Your task to perform on an android device: toggle priority inbox in the gmail app Image 0: 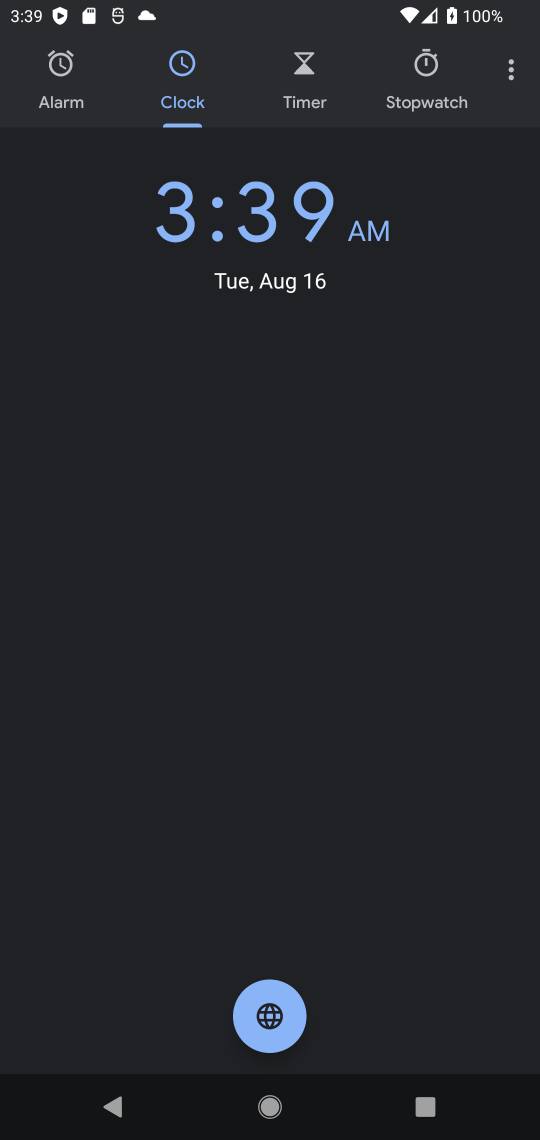
Step 0: press home button
Your task to perform on an android device: toggle priority inbox in the gmail app Image 1: 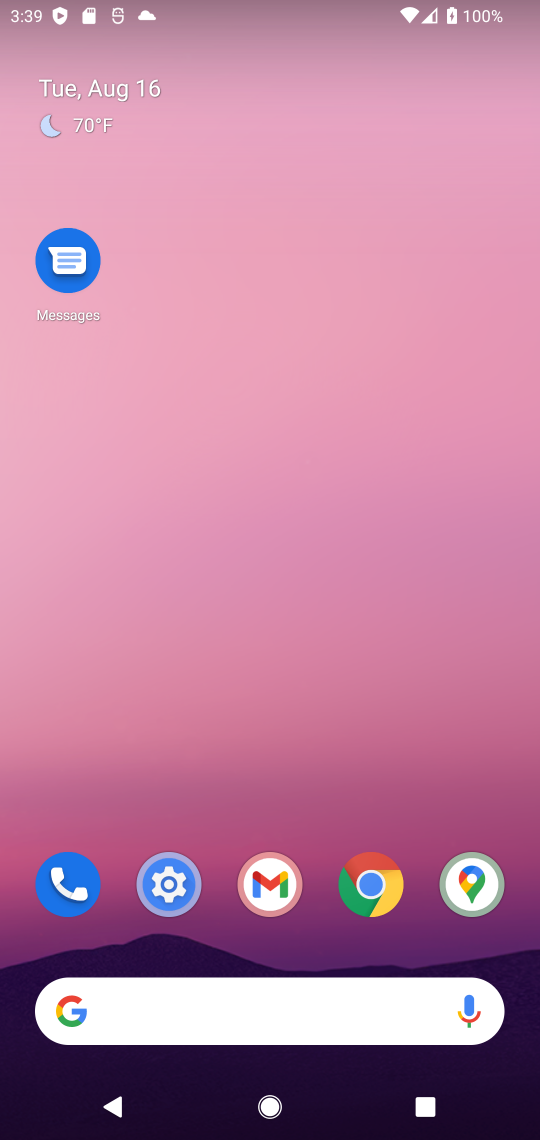
Step 1: click (259, 871)
Your task to perform on an android device: toggle priority inbox in the gmail app Image 2: 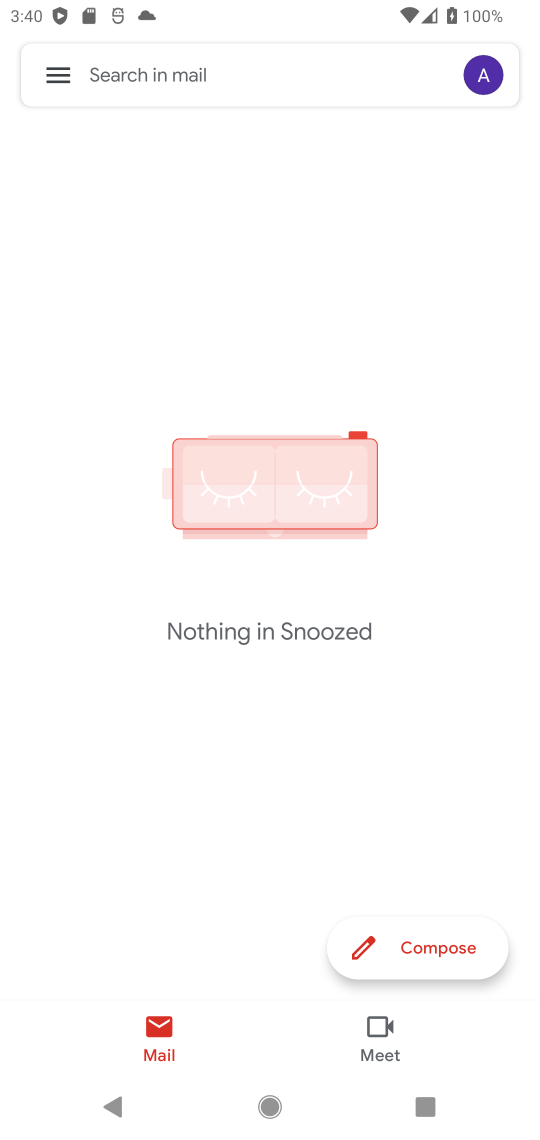
Step 2: click (67, 70)
Your task to perform on an android device: toggle priority inbox in the gmail app Image 3: 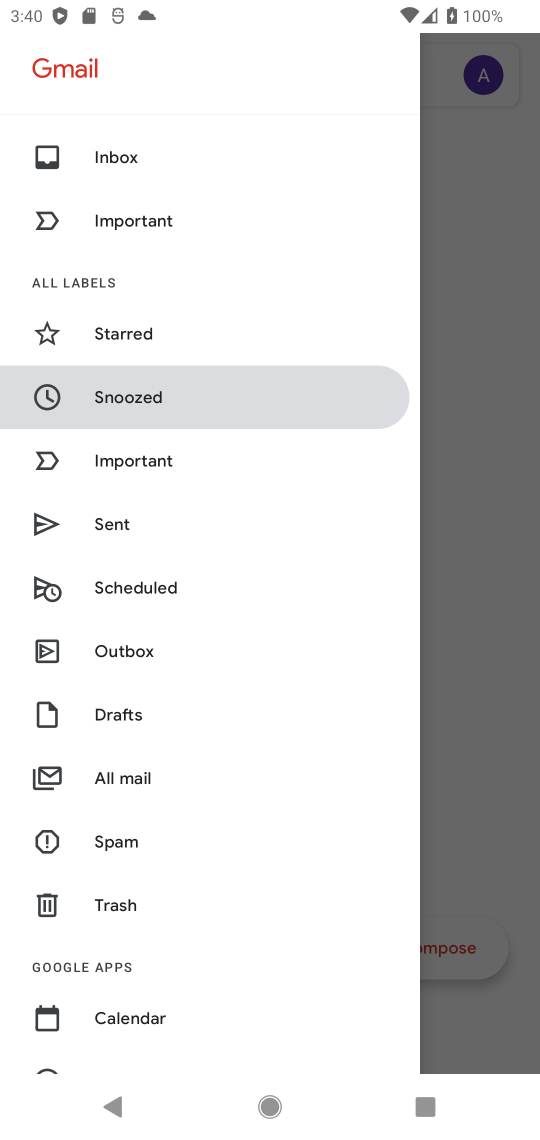
Step 3: drag from (255, 957) to (379, 511)
Your task to perform on an android device: toggle priority inbox in the gmail app Image 4: 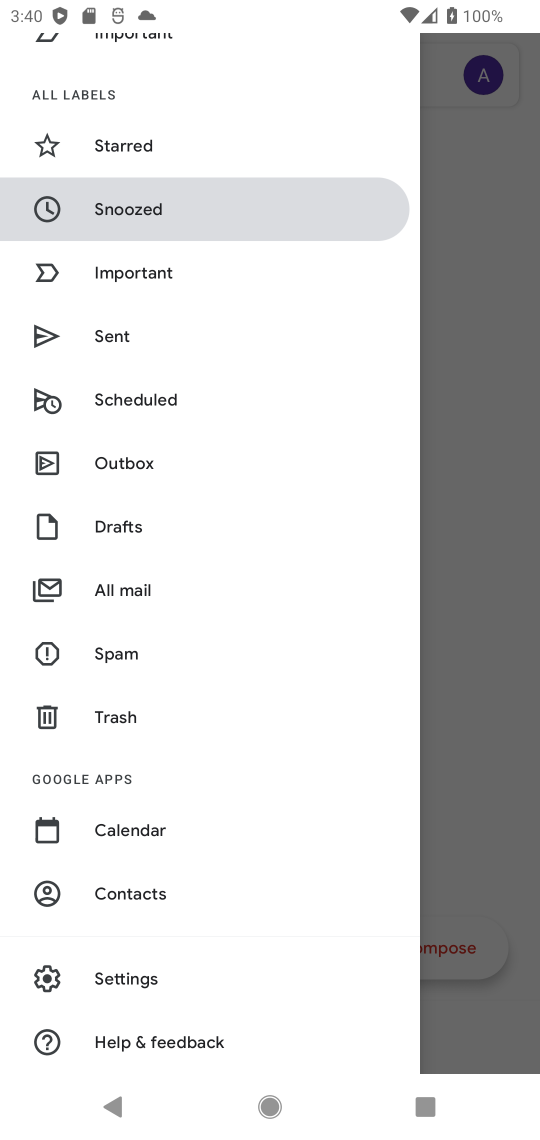
Step 4: click (119, 985)
Your task to perform on an android device: toggle priority inbox in the gmail app Image 5: 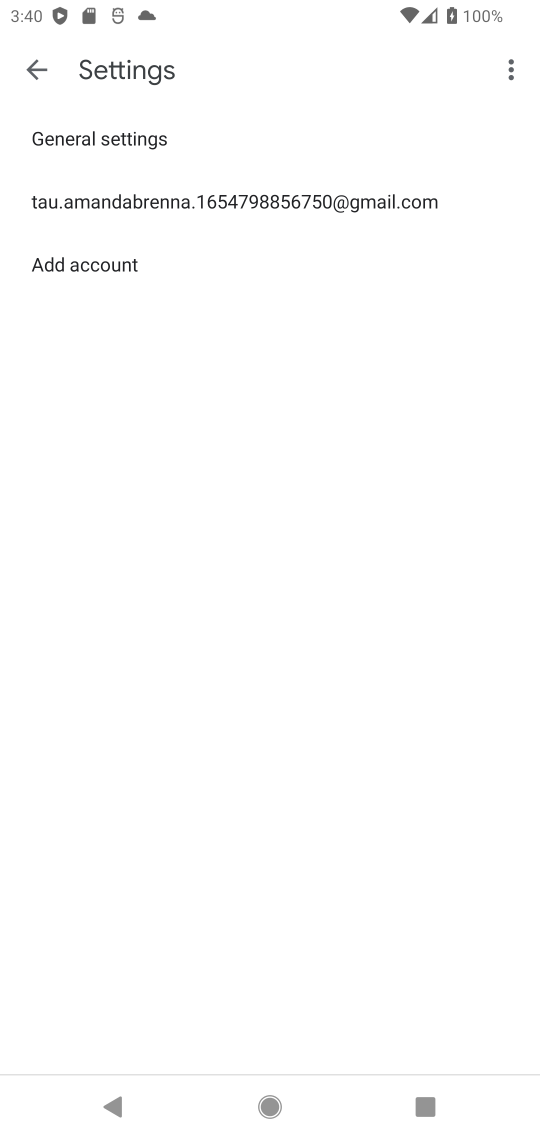
Step 5: click (100, 204)
Your task to perform on an android device: toggle priority inbox in the gmail app Image 6: 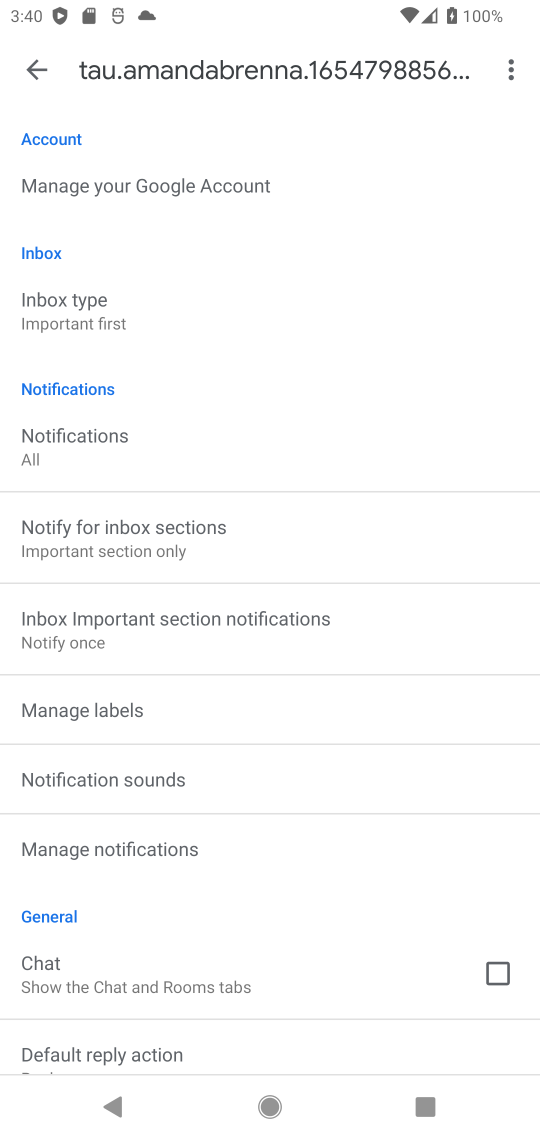
Step 6: click (78, 310)
Your task to perform on an android device: toggle priority inbox in the gmail app Image 7: 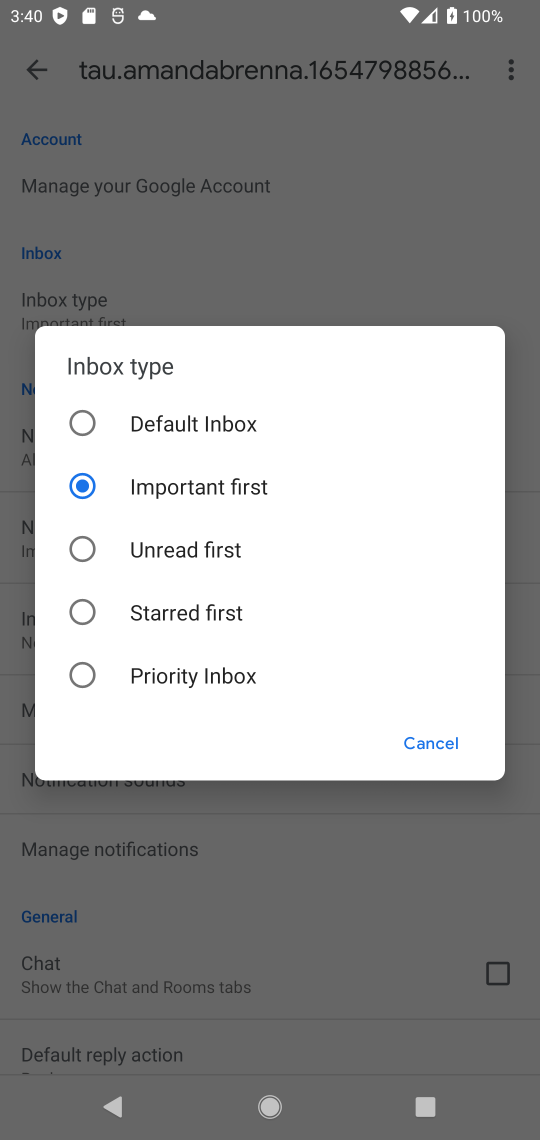
Step 7: click (132, 671)
Your task to perform on an android device: toggle priority inbox in the gmail app Image 8: 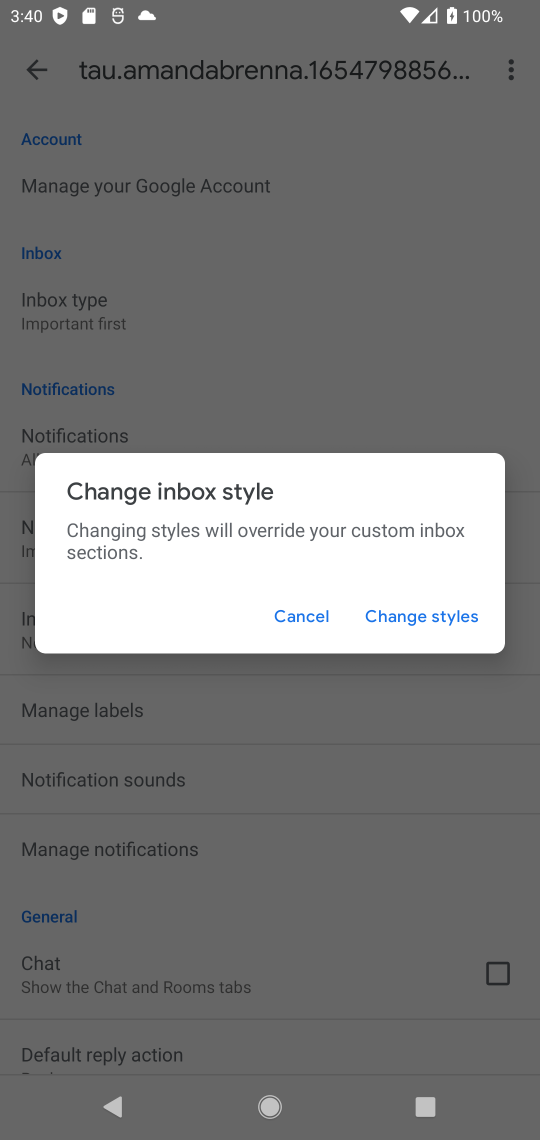
Step 8: click (416, 595)
Your task to perform on an android device: toggle priority inbox in the gmail app Image 9: 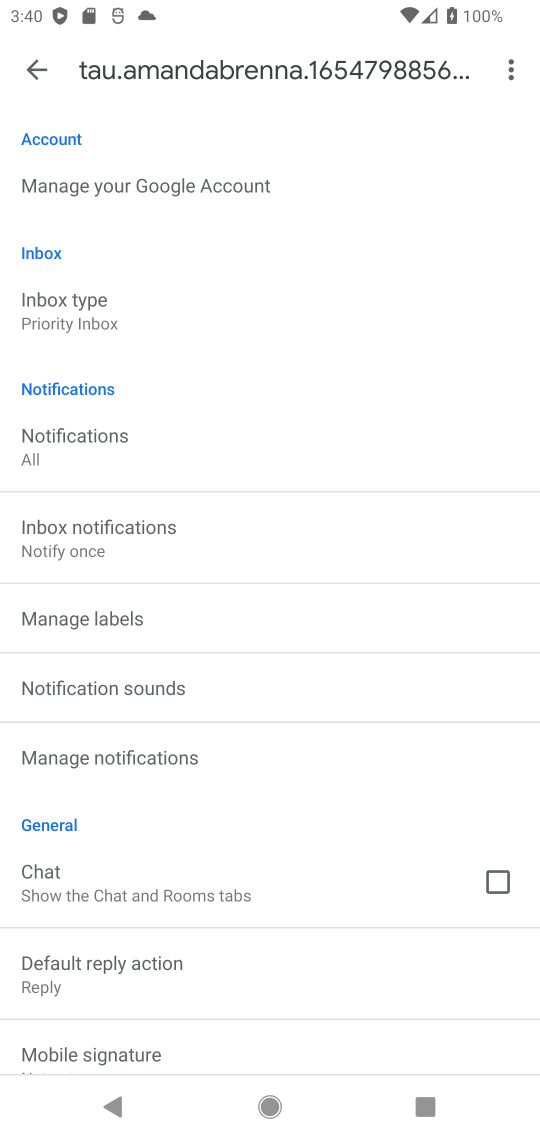
Step 9: task complete